Your task to perform on an android device: Find coffee shops on Maps Image 0: 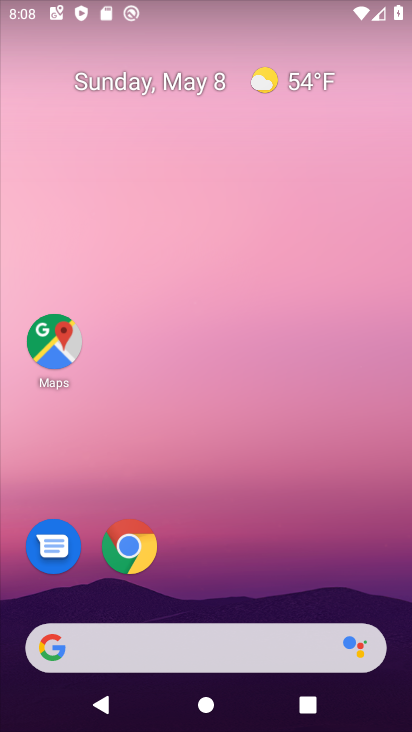
Step 0: click (61, 338)
Your task to perform on an android device: Find coffee shops on Maps Image 1: 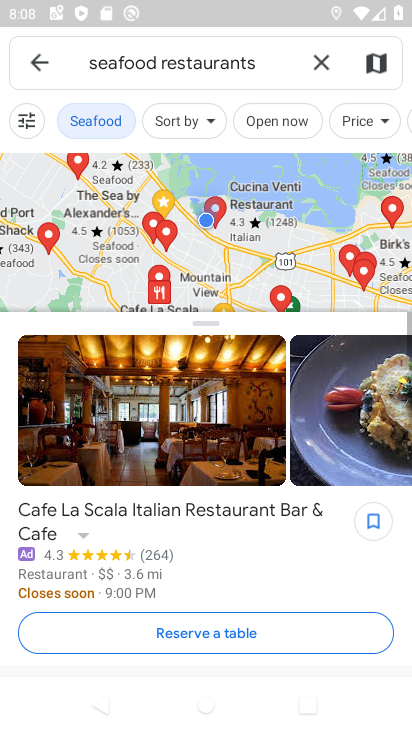
Step 1: click (311, 62)
Your task to perform on an android device: Find coffee shops on Maps Image 2: 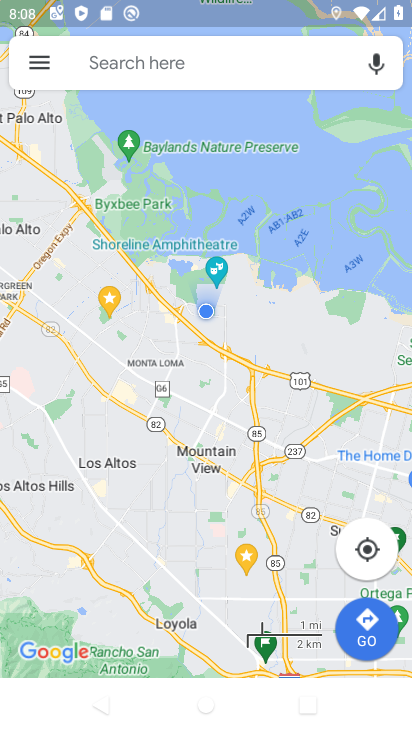
Step 2: click (158, 61)
Your task to perform on an android device: Find coffee shops on Maps Image 3: 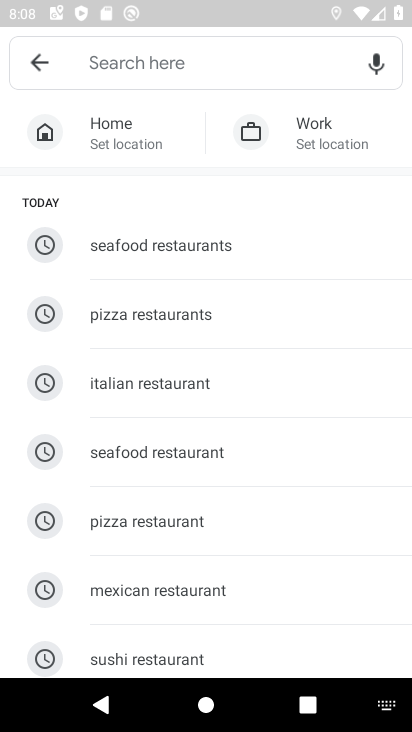
Step 3: type "coffee shops"
Your task to perform on an android device: Find coffee shops on Maps Image 4: 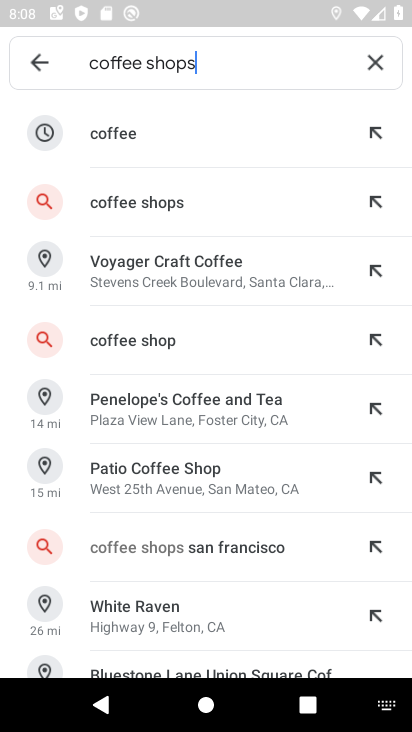
Step 4: click (165, 193)
Your task to perform on an android device: Find coffee shops on Maps Image 5: 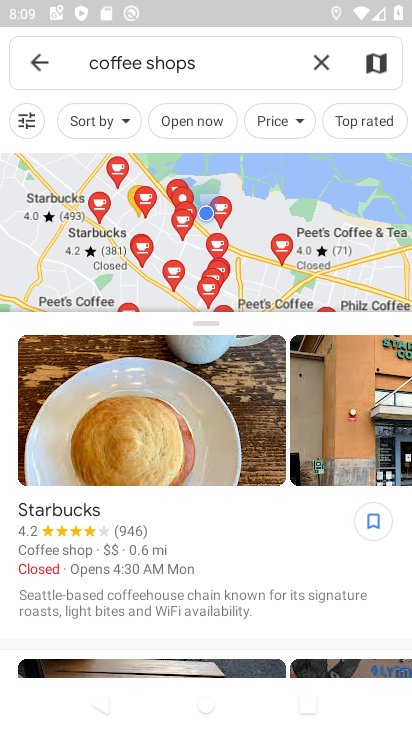
Step 5: task complete